Your task to perform on an android device: Open the Play Movies app and select the watchlist tab. Image 0: 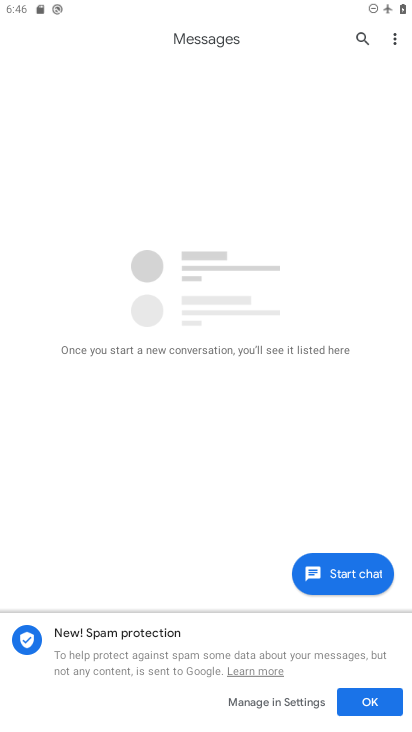
Step 0: press home button
Your task to perform on an android device: Open the Play Movies app and select the watchlist tab. Image 1: 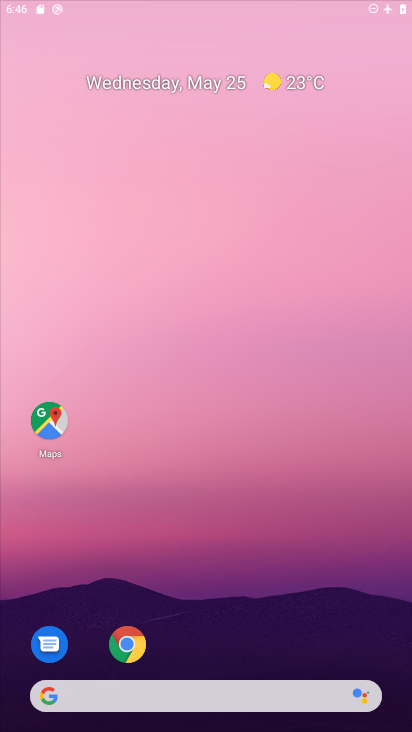
Step 1: drag from (402, 635) to (305, 64)
Your task to perform on an android device: Open the Play Movies app and select the watchlist tab. Image 2: 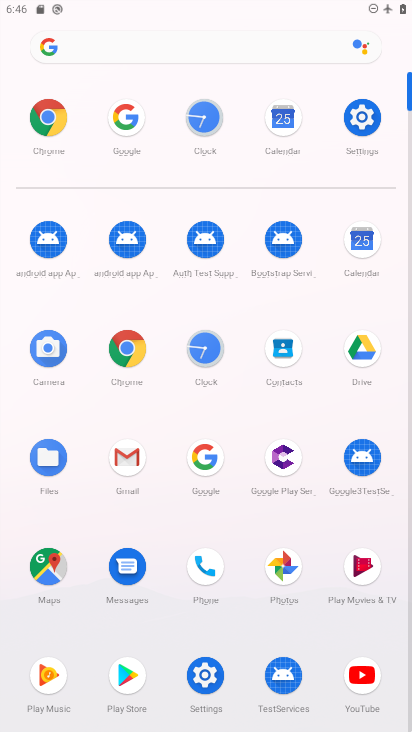
Step 2: click (337, 578)
Your task to perform on an android device: Open the Play Movies app and select the watchlist tab. Image 3: 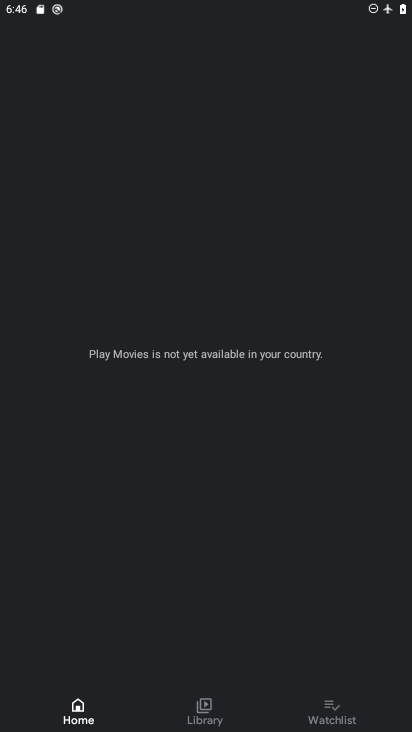
Step 3: click (337, 704)
Your task to perform on an android device: Open the Play Movies app and select the watchlist tab. Image 4: 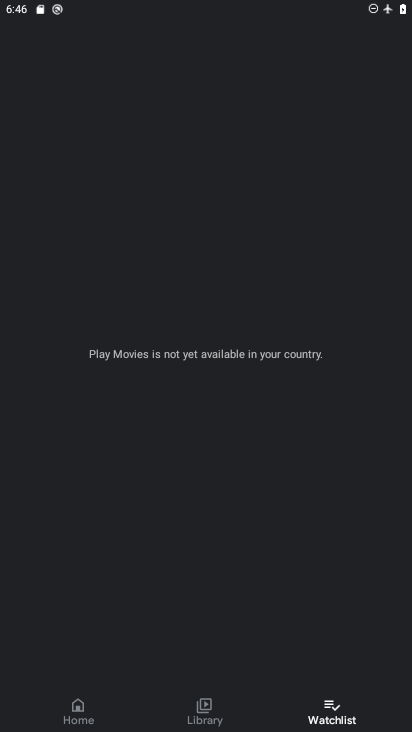
Step 4: task complete